Your task to perform on an android device: add a contact Image 0: 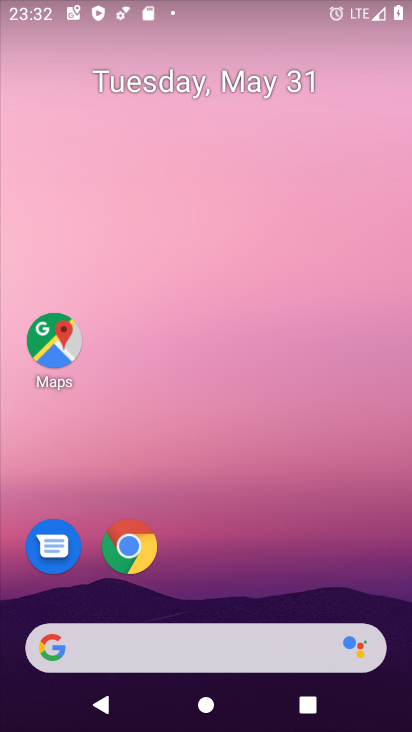
Step 0: drag from (227, 548) to (198, 231)
Your task to perform on an android device: add a contact Image 1: 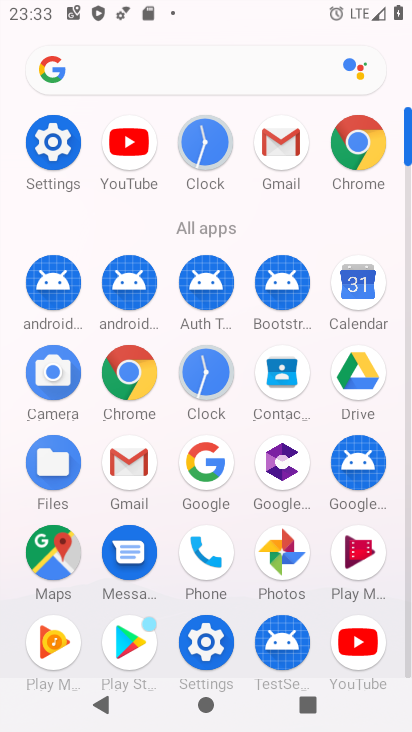
Step 1: click (276, 376)
Your task to perform on an android device: add a contact Image 2: 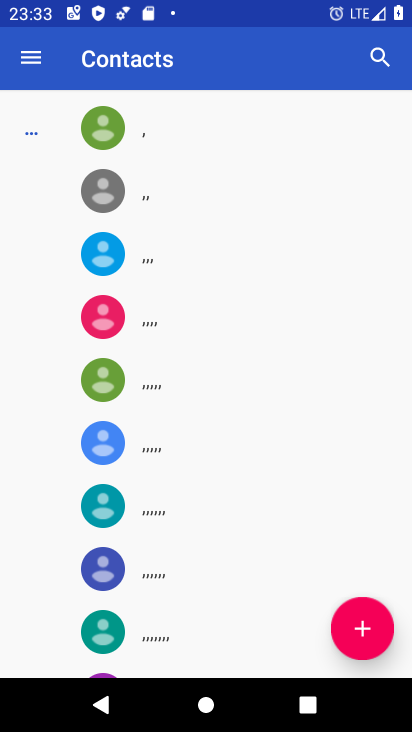
Step 2: click (371, 618)
Your task to perform on an android device: add a contact Image 3: 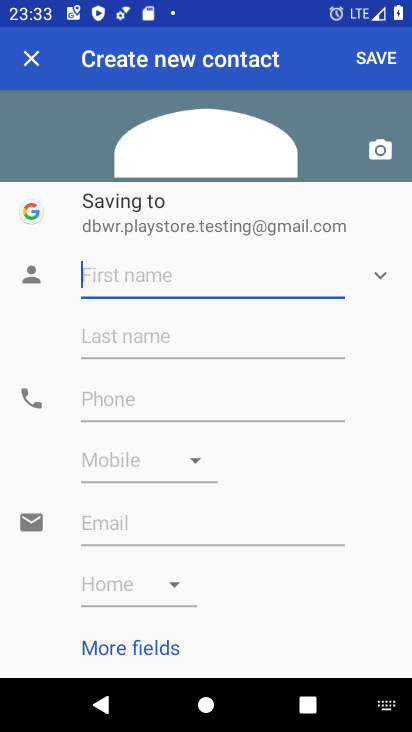
Step 3: click (176, 281)
Your task to perform on an android device: add a contact Image 4: 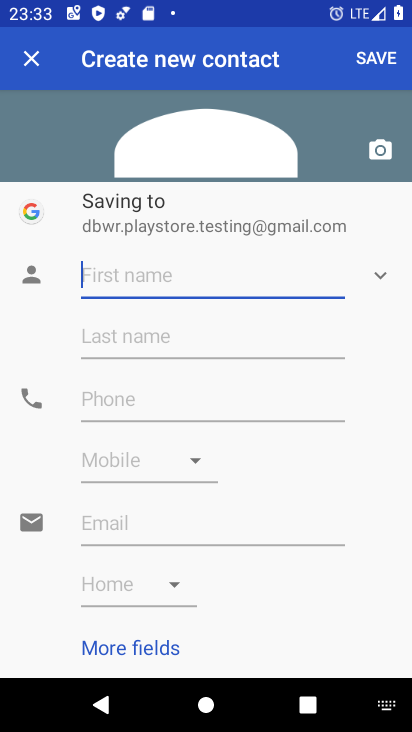
Step 4: type "nnhnh"
Your task to perform on an android device: add a contact Image 5: 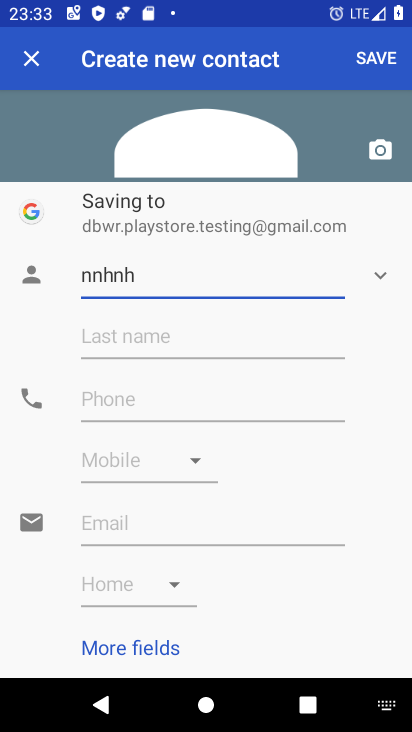
Step 5: click (284, 408)
Your task to perform on an android device: add a contact Image 6: 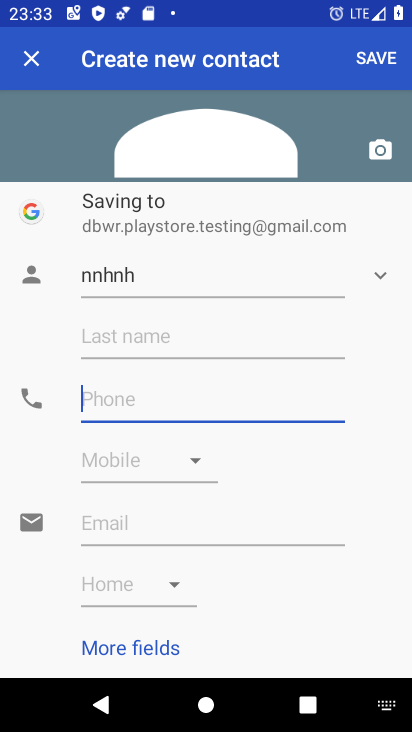
Step 6: type "87887"
Your task to perform on an android device: add a contact Image 7: 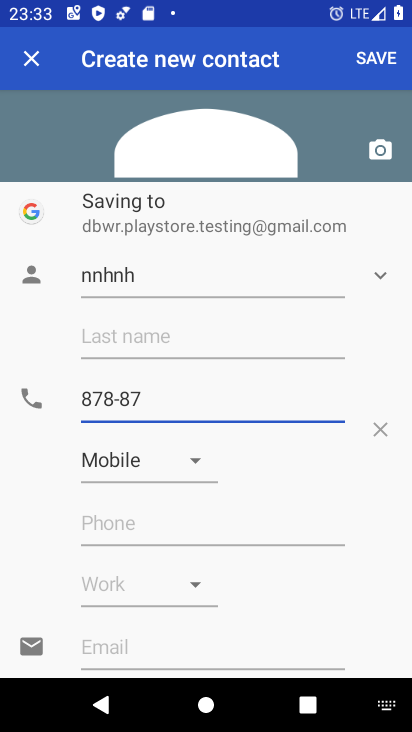
Step 7: click (370, 52)
Your task to perform on an android device: add a contact Image 8: 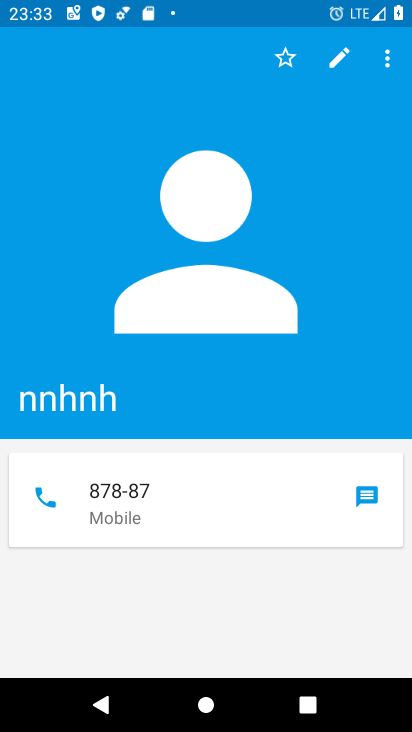
Step 8: task complete